Your task to perform on an android device: Go to wifi settings Image 0: 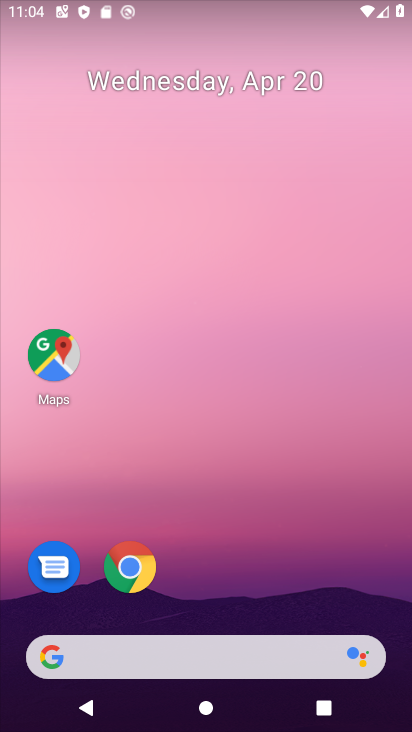
Step 0: drag from (287, 554) to (218, 27)
Your task to perform on an android device: Go to wifi settings Image 1: 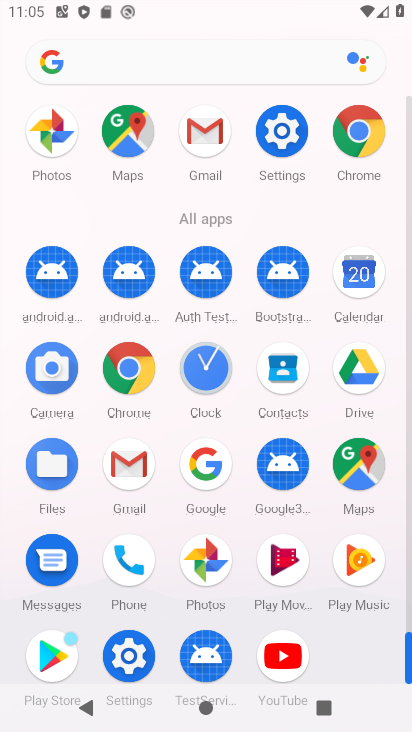
Step 1: click (276, 134)
Your task to perform on an android device: Go to wifi settings Image 2: 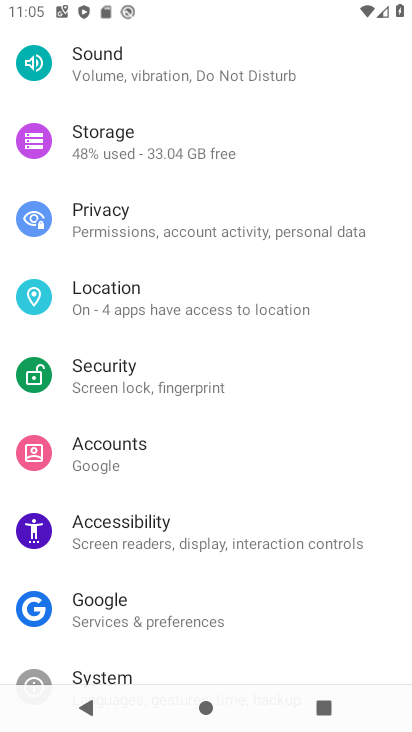
Step 2: drag from (276, 145) to (288, 441)
Your task to perform on an android device: Go to wifi settings Image 3: 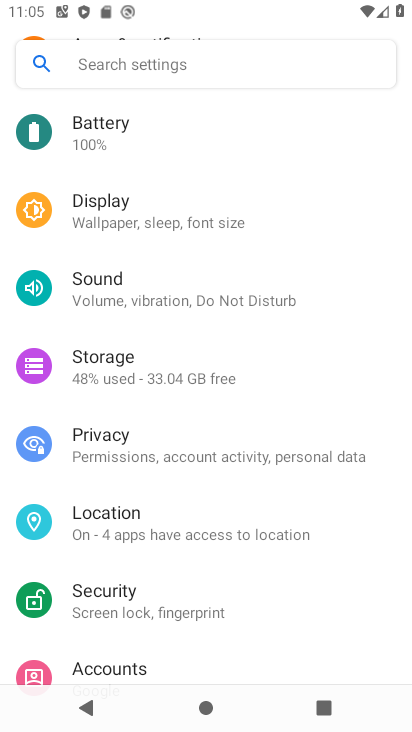
Step 3: drag from (195, 120) to (241, 477)
Your task to perform on an android device: Go to wifi settings Image 4: 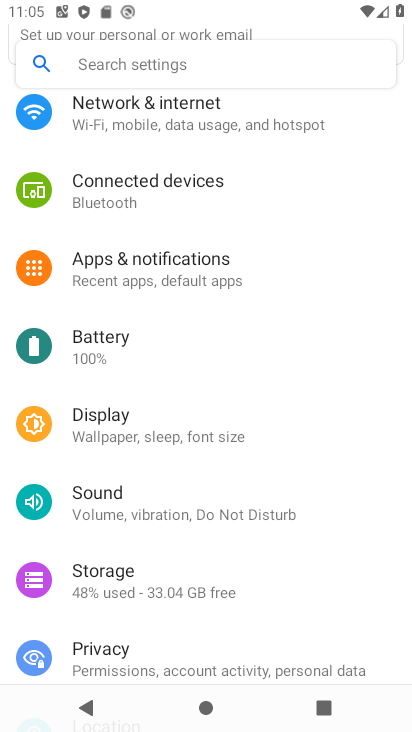
Step 4: drag from (181, 139) to (200, 422)
Your task to perform on an android device: Go to wifi settings Image 5: 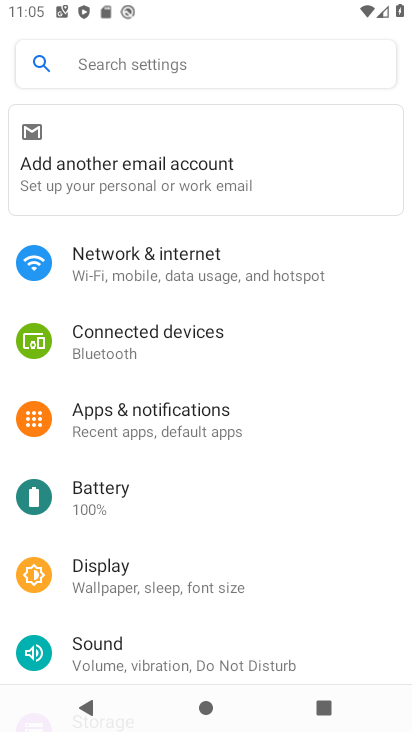
Step 5: click (171, 278)
Your task to perform on an android device: Go to wifi settings Image 6: 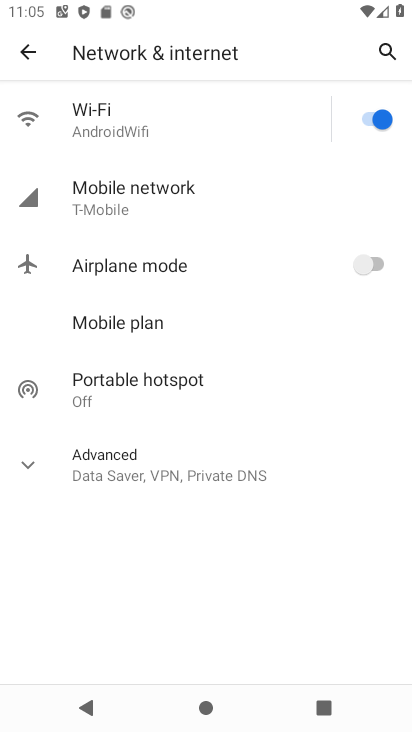
Step 6: click (138, 106)
Your task to perform on an android device: Go to wifi settings Image 7: 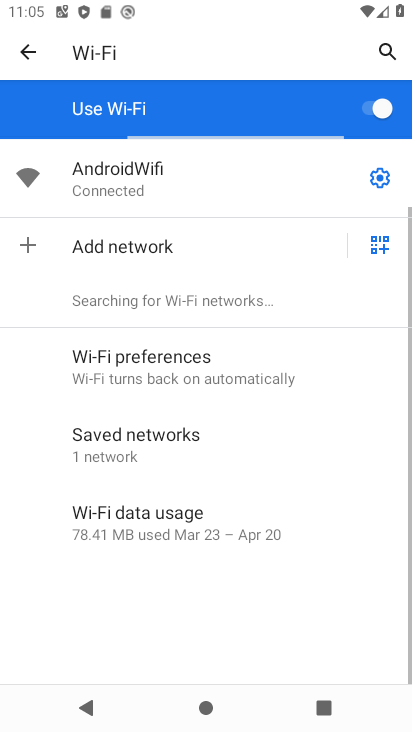
Step 7: task complete